Your task to perform on an android device: add a label to a message in the gmail app Image 0: 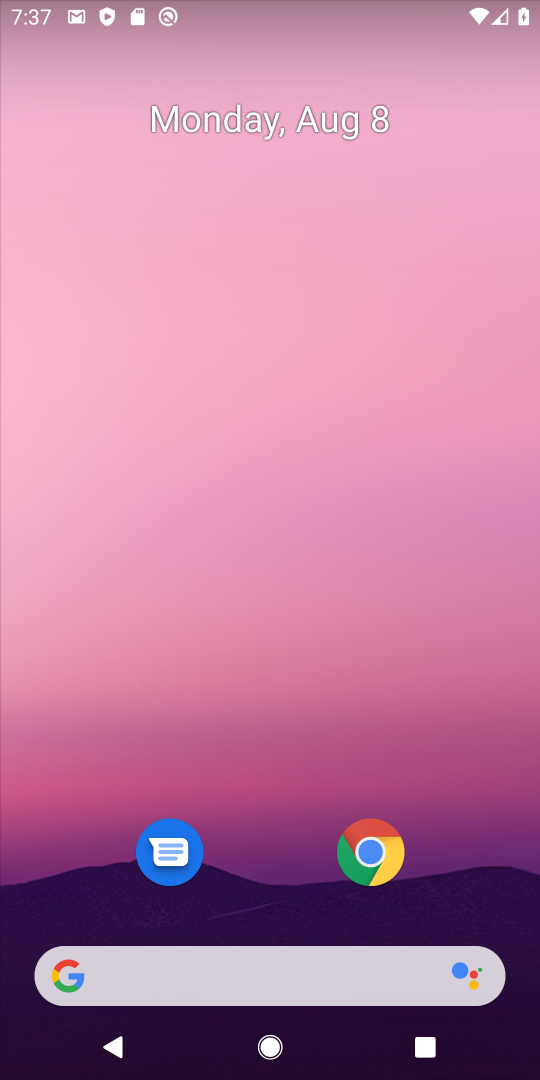
Step 0: drag from (355, 384) to (385, 174)
Your task to perform on an android device: add a label to a message in the gmail app Image 1: 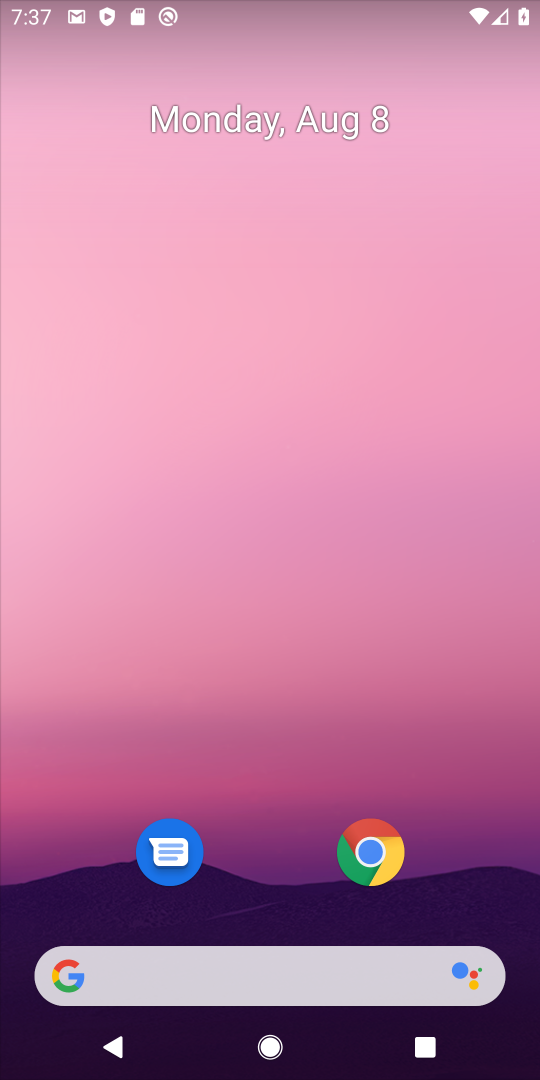
Step 1: drag from (356, 961) to (389, 256)
Your task to perform on an android device: add a label to a message in the gmail app Image 2: 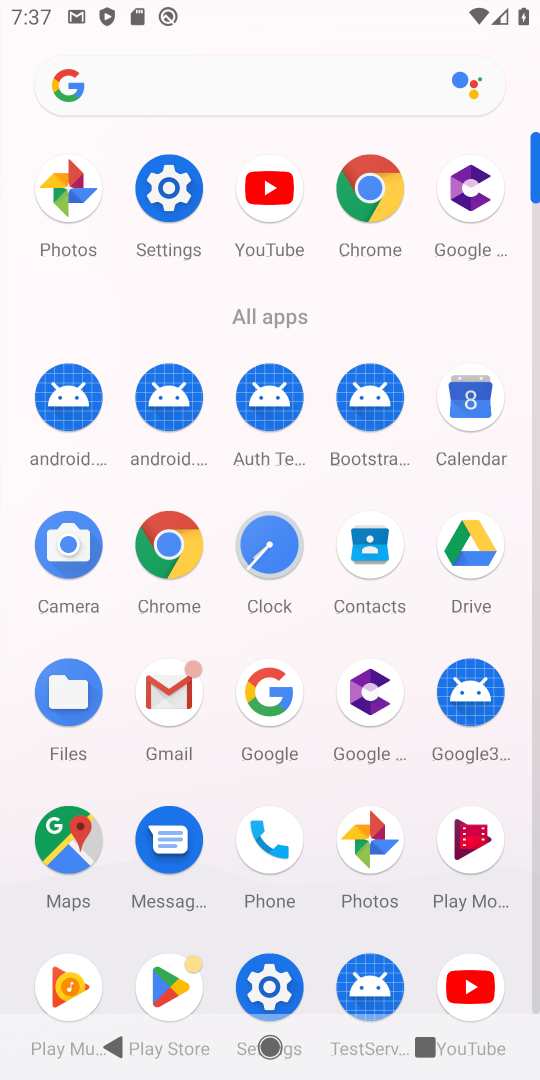
Step 2: click (155, 686)
Your task to perform on an android device: add a label to a message in the gmail app Image 3: 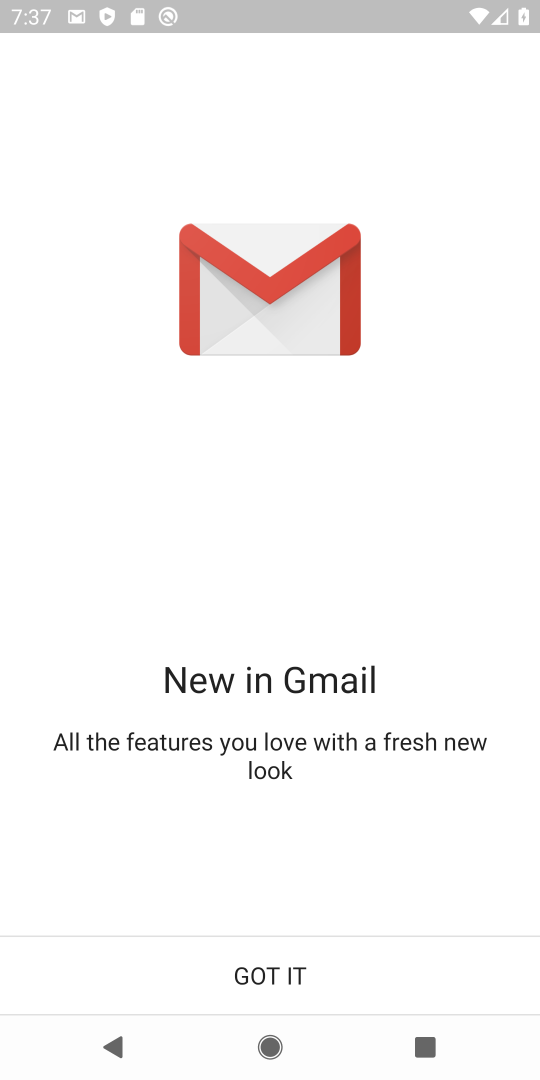
Step 3: click (242, 977)
Your task to perform on an android device: add a label to a message in the gmail app Image 4: 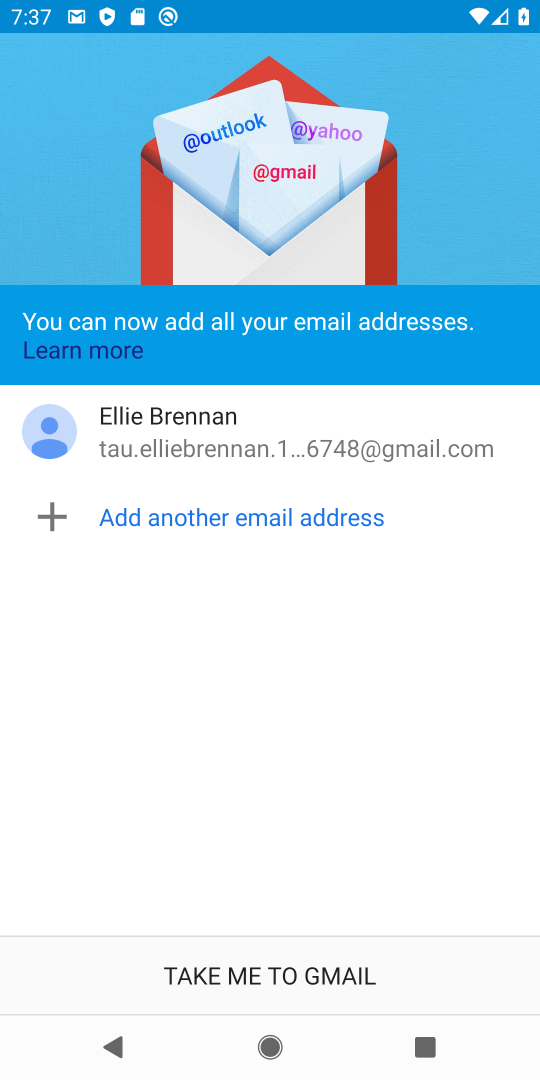
Step 4: click (366, 971)
Your task to perform on an android device: add a label to a message in the gmail app Image 5: 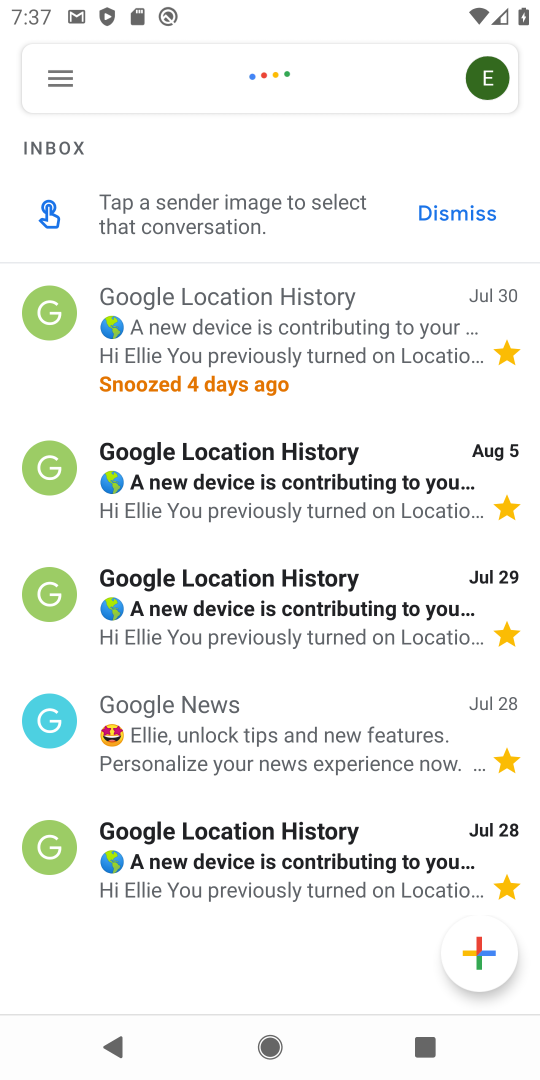
Step 5: click (203, 342)
Your task to perform on an android device: add a label to a message in the gmail app Image 6: 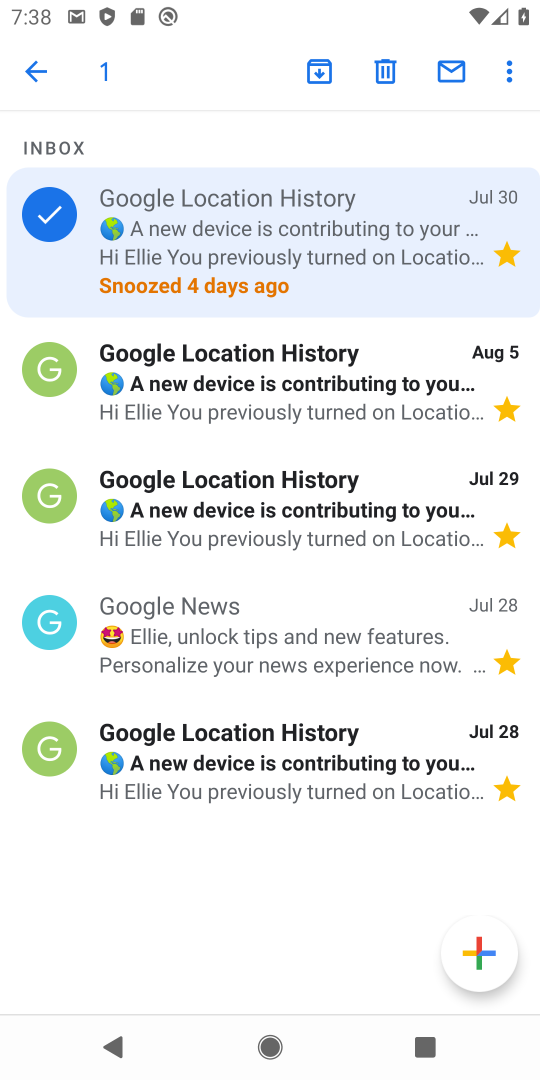
Step 6: click (506, 68)
Your task to perform on an android device: add a label to a message in the gmail app Image 7: 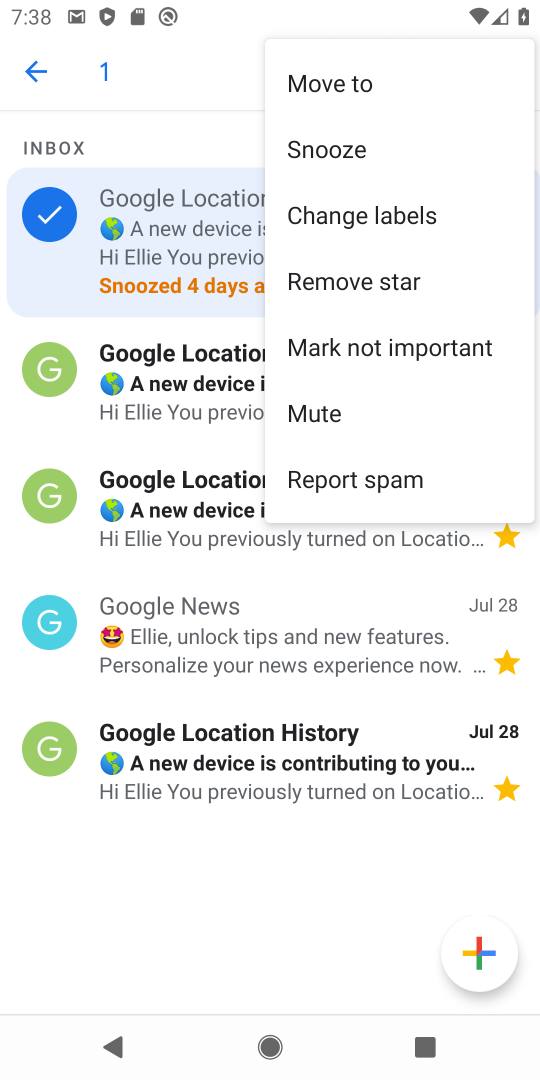
Step 7: click (342, 226)
Your task to perform on an android device: add a label to a message in the gmail app Image 8: 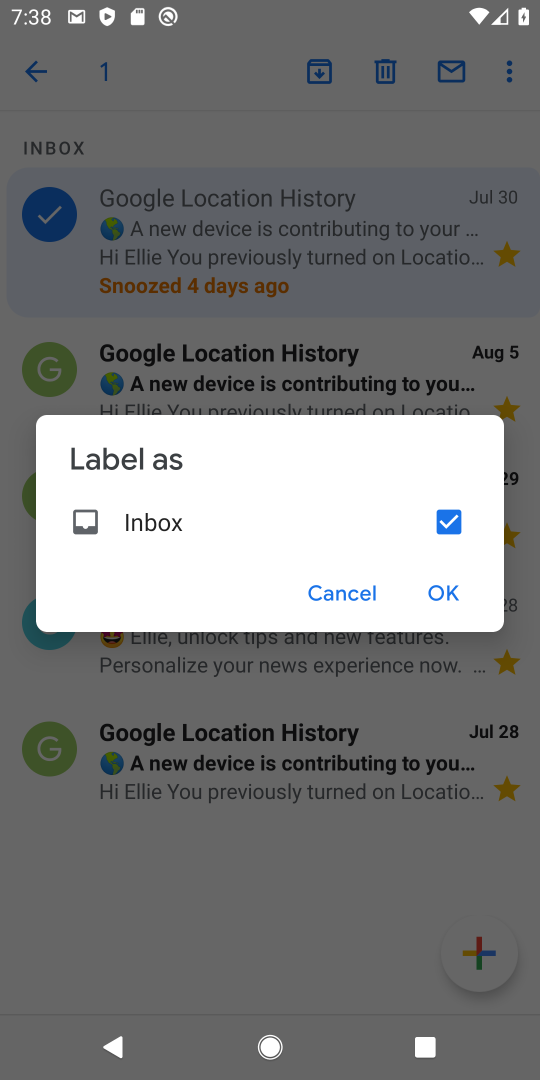
Step 8: click (447, 602)
Your task to perform on an android device: add a label to a message in the gmail app Image 9: 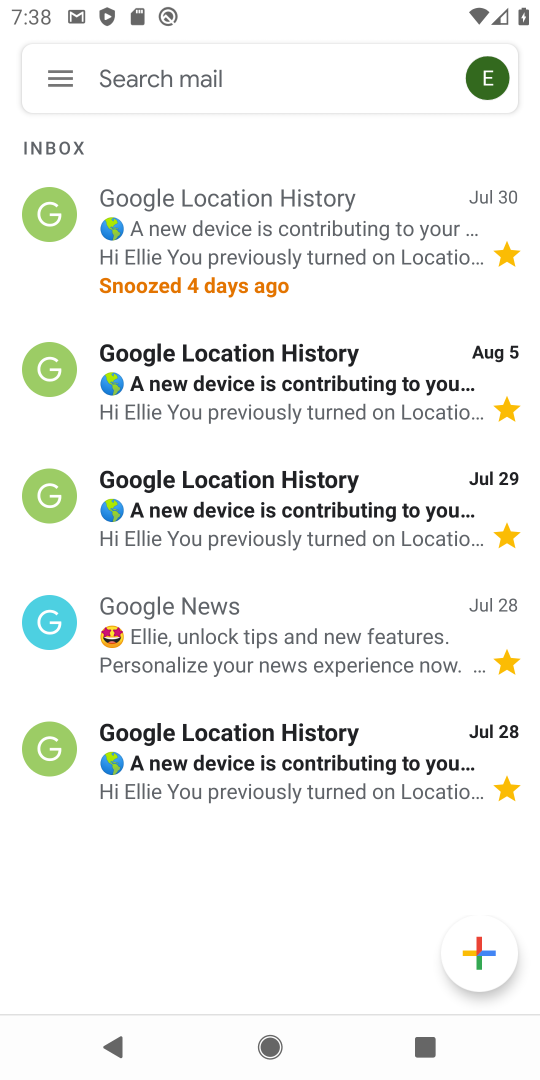
Step 9: task complete